Your task to perform on an android device: Go to internet settings Image 0: 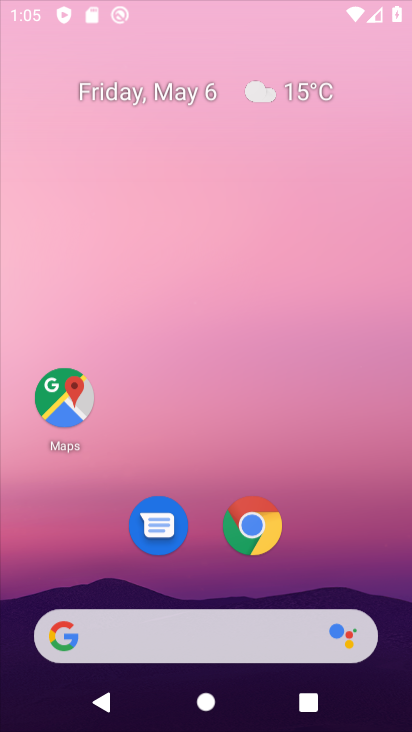
Step 0: click (251, 535)
Your task to perform on an android device: Go to internet settings Image 1: 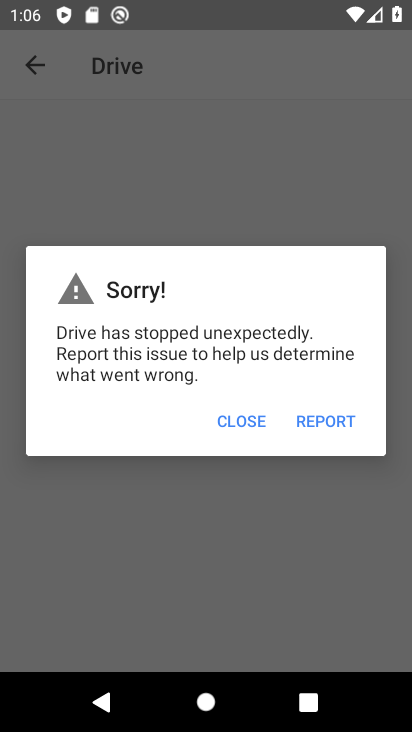
Step 1: press home button
Your task to perform on an android device: Go to internet settings Image 2: 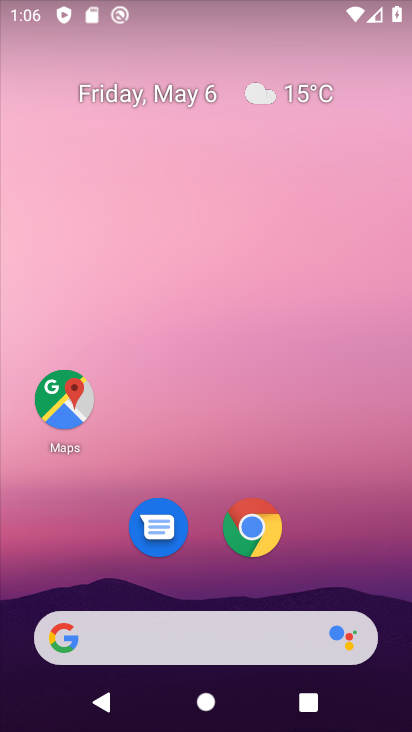
Step 2: drag from (165, 16) to (161, 673)
Your task to perform on an android device: Go to internet settings Image 3: 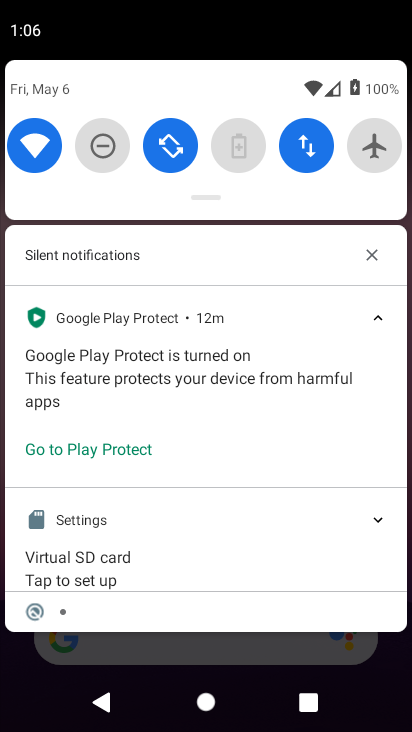
Step 3: drag from (193, 82) to (48, 709)
Your task to perform on an android device: Go to internet settings Image 4: 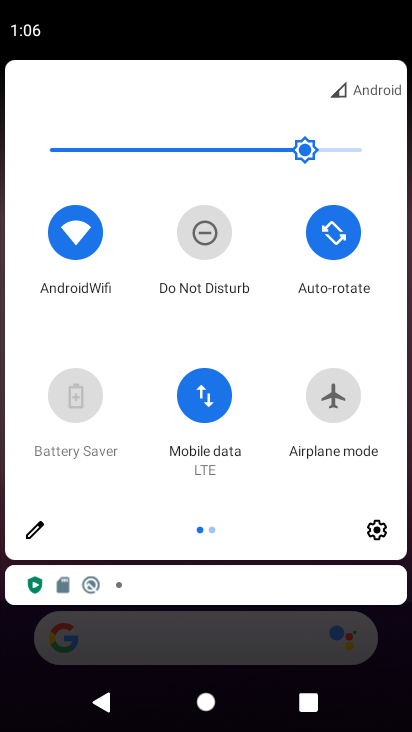
Step 4: click (379, 529)
Your task to perform on an android device: Go to internet settings Image 5: 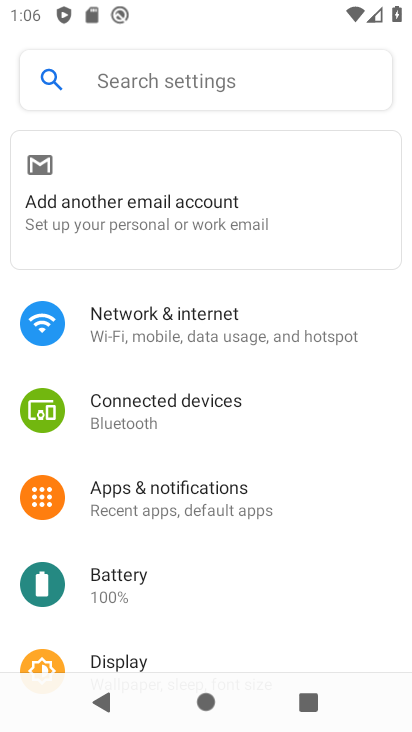
Step 5: click (124, 339)
Your task to perform on an android device: Go to internet settings Image 6: 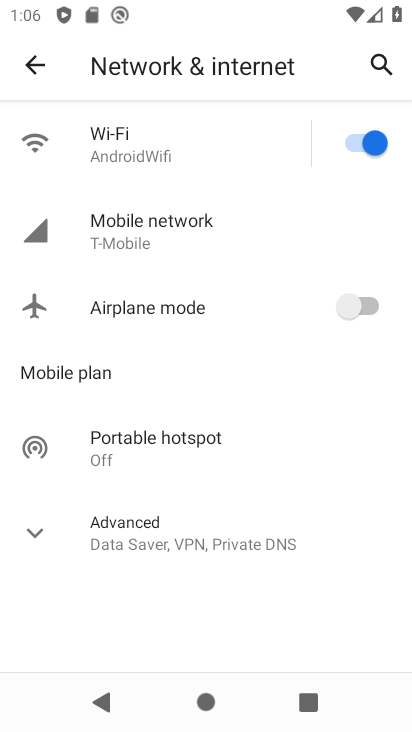
Step 6: click (263, 238)
Your task to perform on an android device: Go to internet settings Image 7: 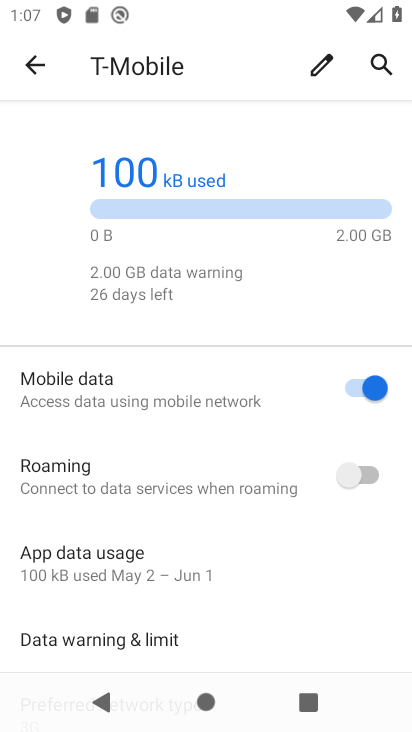
Step 7: task complete